Your task to perform on an android device: turn vacation reply on in the gmail app Image 0: 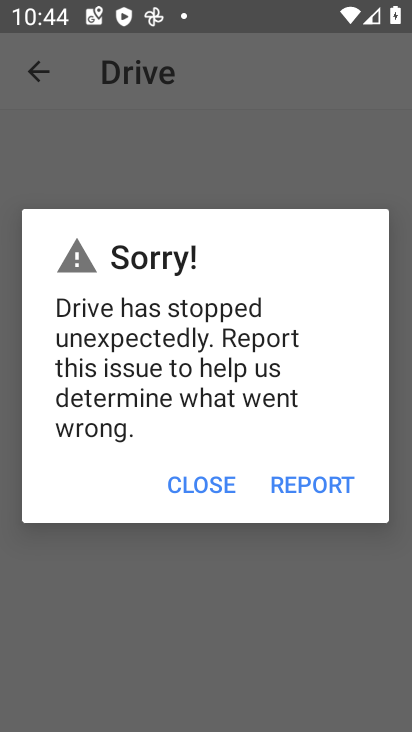
Step 0: press home button
Your task to perform on an android device: turn vacation reply on in the gmail app Image 1: 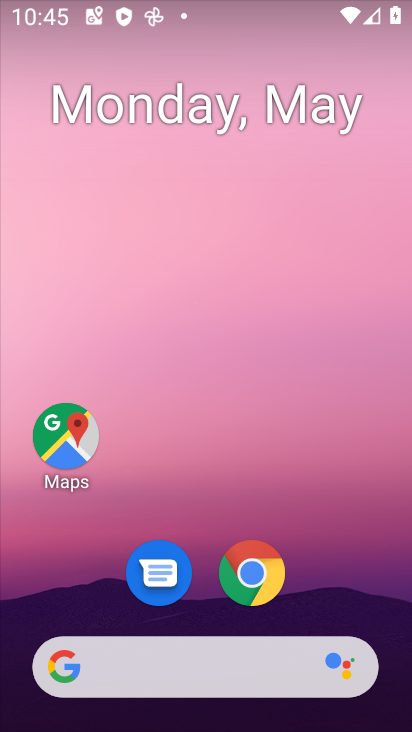
Step 1: drag from (376, 554) to (227, 63)
Your task to perform on an android device: turn vacation reply on in the gmail app Image 2: 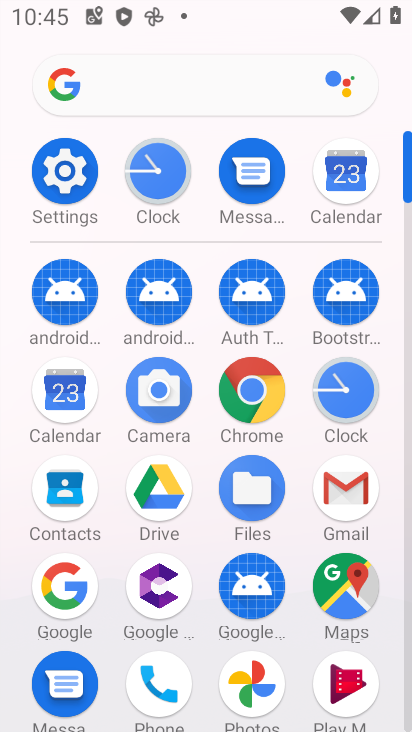
Step 2: click (349, 493)
Your task to perform on an android device: turn vacation reply on in the gmail app Image 3: 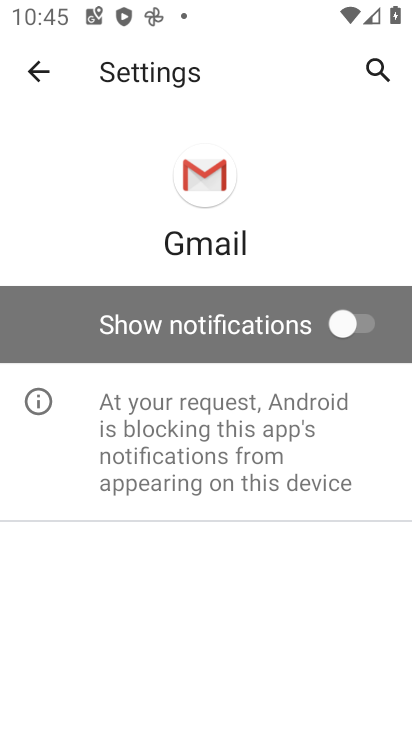
Step 3: click (54, 67)
Your task to perform on an android device: turn vacation reply on in the gmail app Image 4: 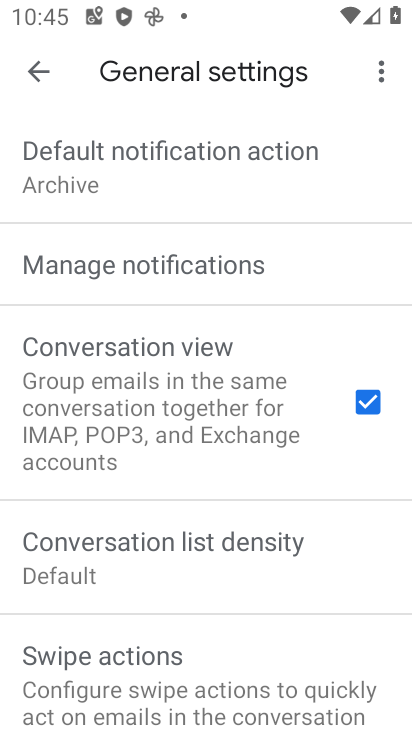
Step 4: task complete